Your task to perform on an android device: Show me popular videos on Youtube Image 0: 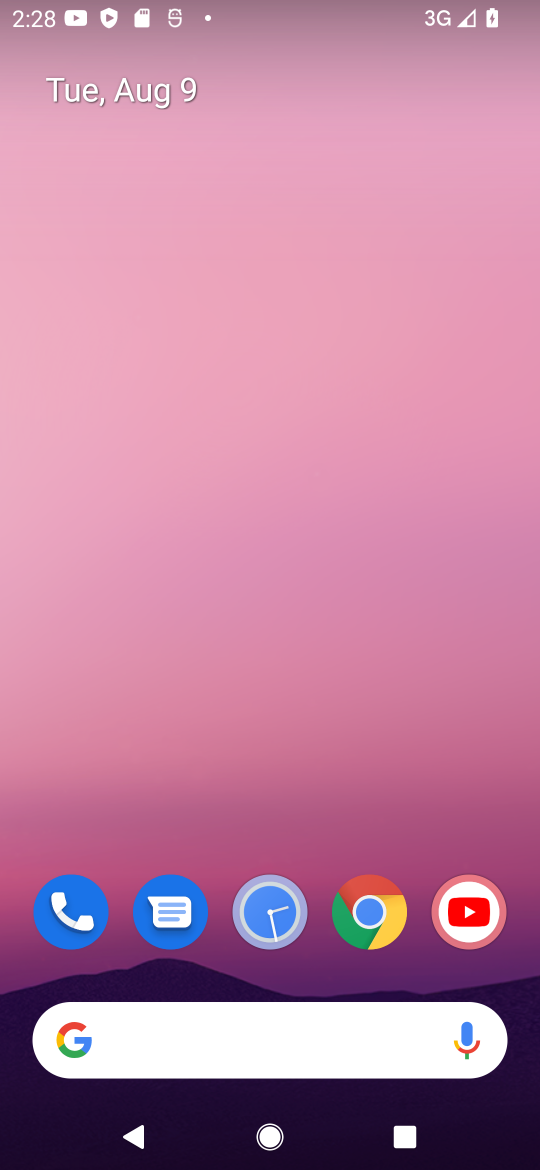
Step 0: click (463, 912)
Your task to perform on an android device: Show me popular videos on Youtube Image 1: 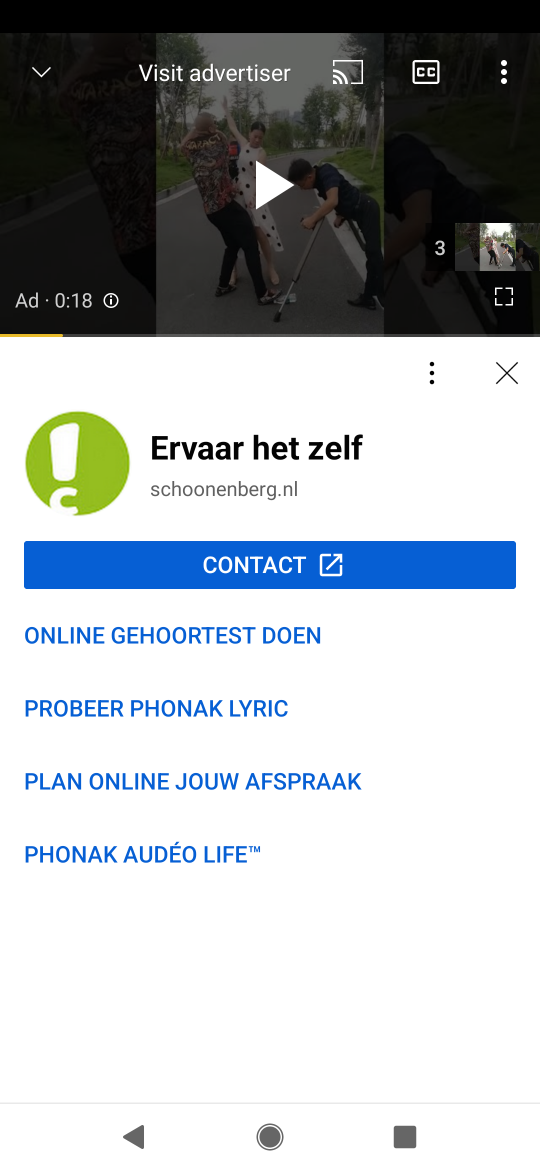
Step 1: click (48, 67)
Your task to perform on an android device: Show me popular videos on Youtube Image 2: 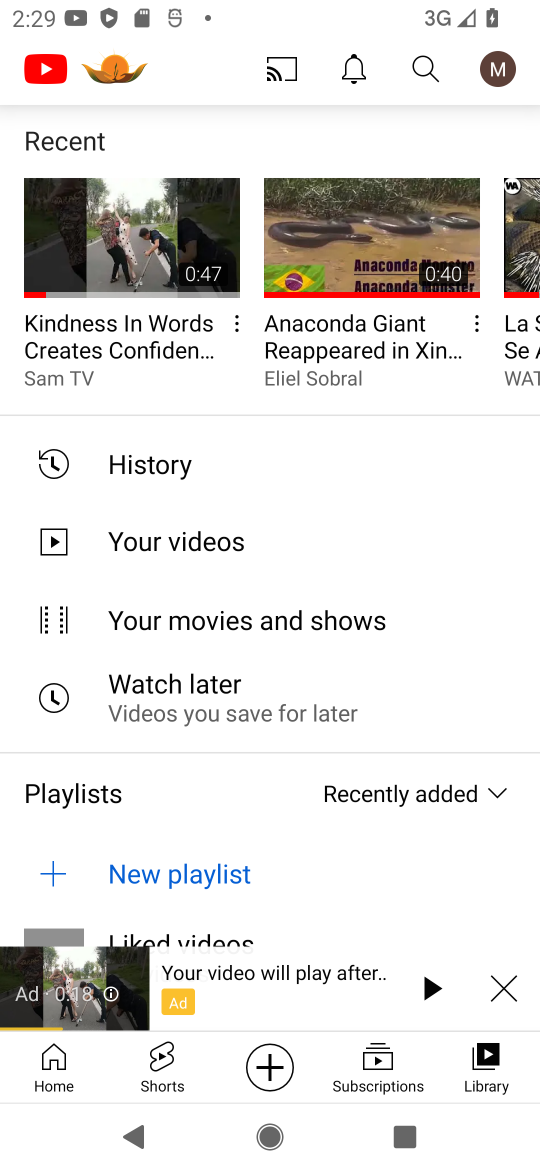
Step 2: click (505, 985)
Your task to perform on an android device: Show me popular videos on Youtube Image 3: 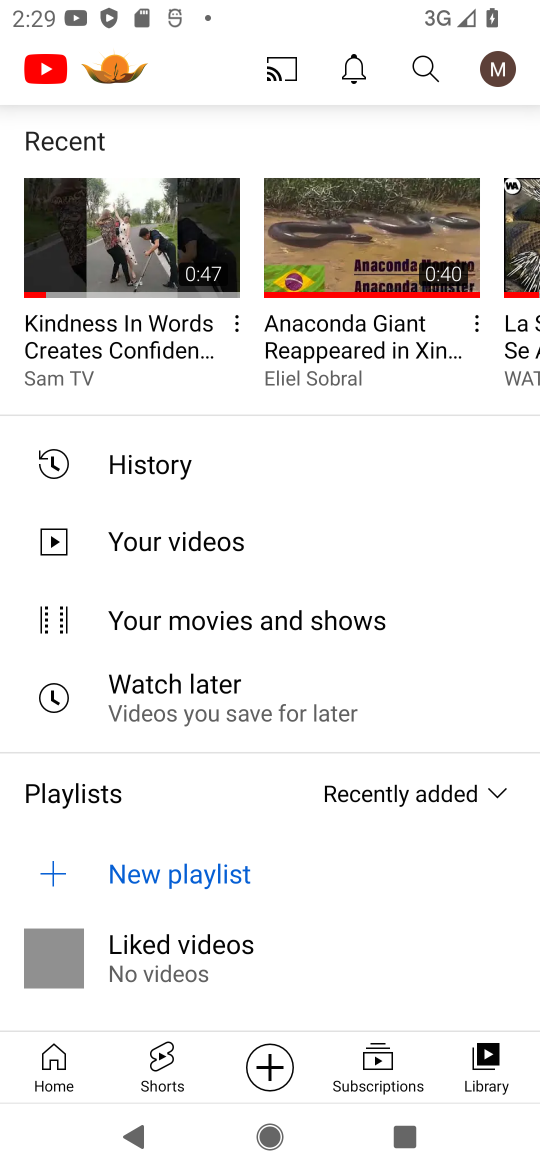
Step 3: click (152, 253)
Your task to perform on an android device: Show me popular videos on Youtube Image 4: 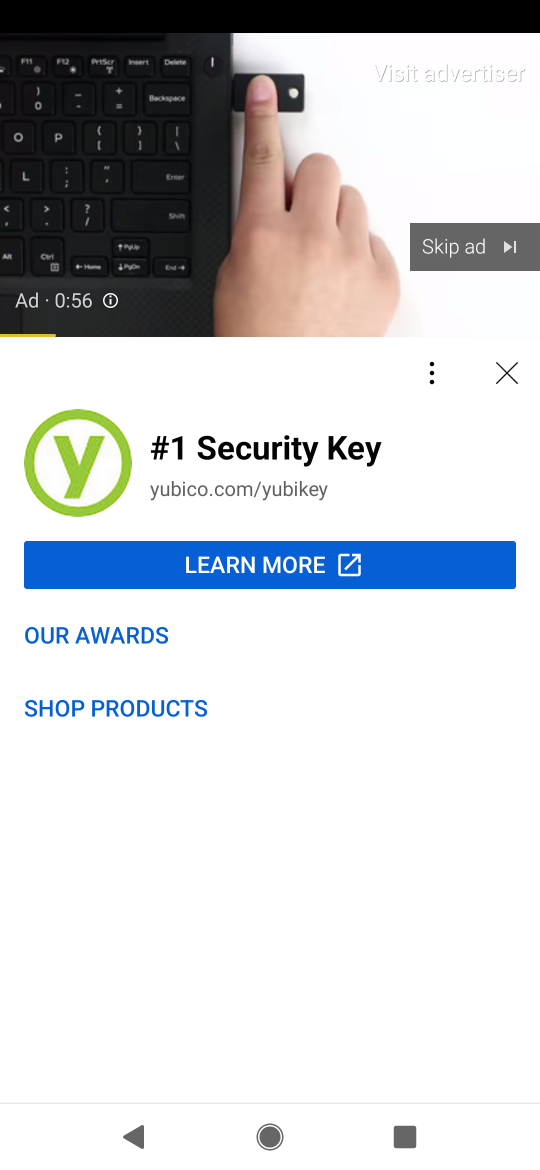
Step 4: task complete